Your task to perform on an android device: Open settings Image 0: 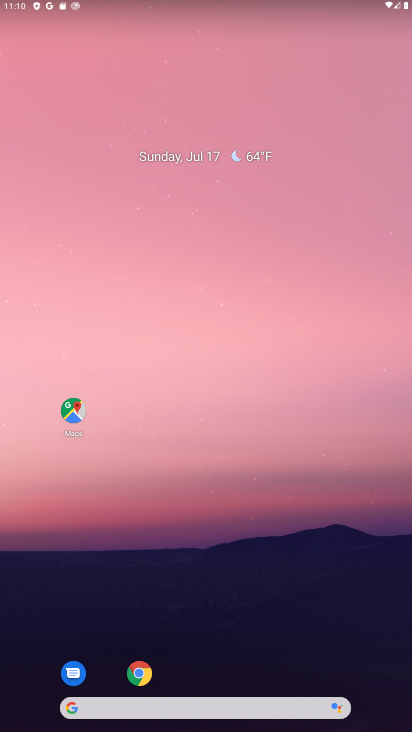
Step 0: drag from (204, 676) to (197, 96)
Your task to perform on an android device: Open settings Image 1: 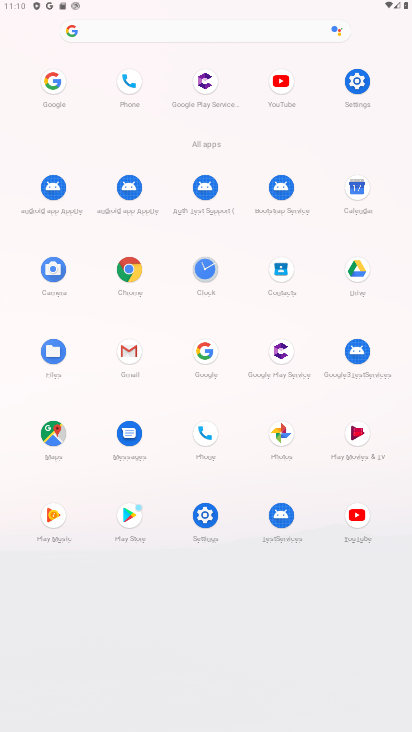
Step 1: click (354, 80)
Your task to perform on an android device: Open settings Image 2: 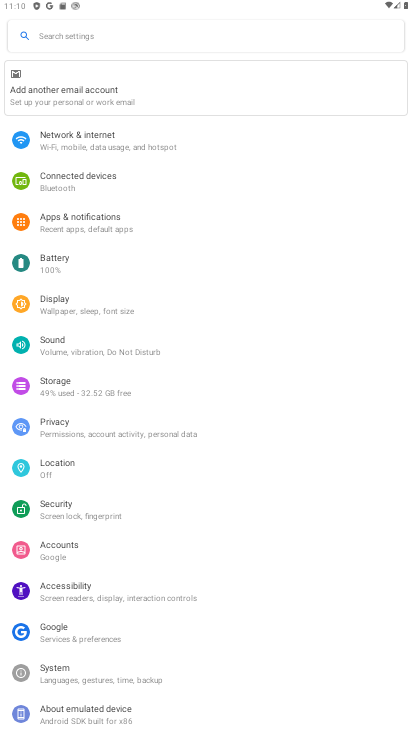
Step 2: task complete